Your task to perform on an android device: turn off airplane mode Image 0: 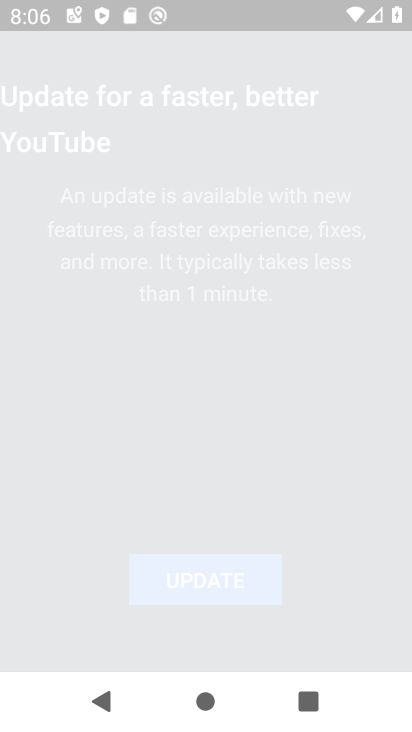
Step 0: press home button
Your task to perform on an android device: turn off airplane mode Image 1: 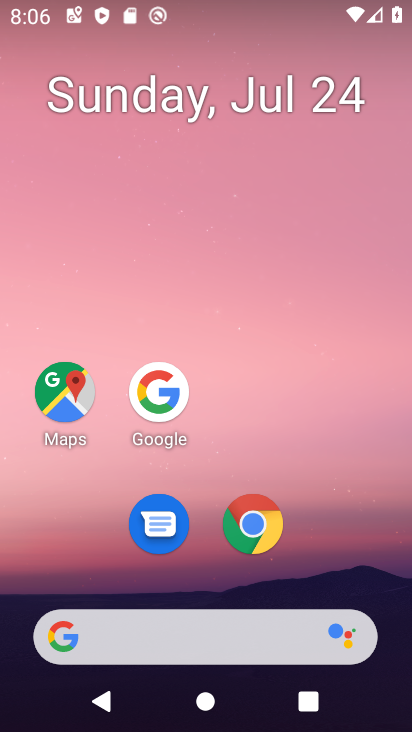
Step 1: drag from (197, 629) to (342, 88)
Your task to perform on an android device: turn off airplane mode Image 2: 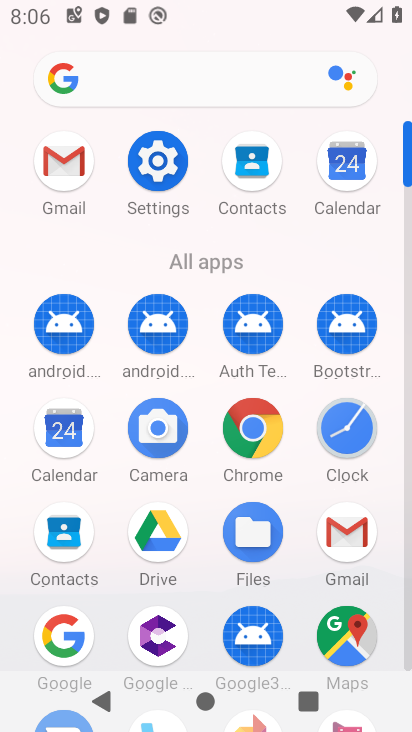
Step 2: click (162, 149)
Your task to perform on an android device: turn off airplane mode Image 3: 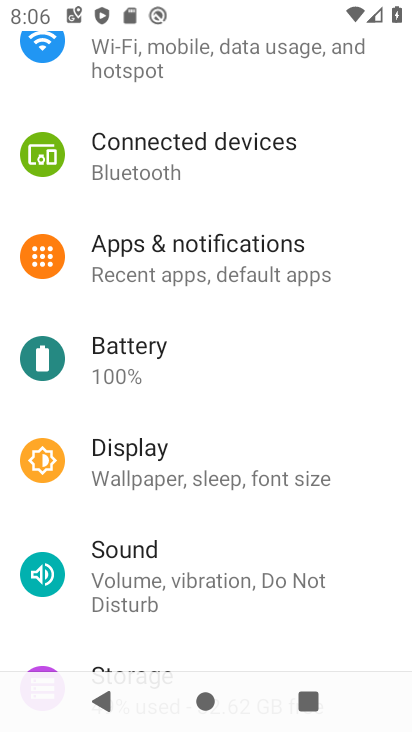
Step 3: drag from (334, 97) to (292, 591)
Your task to perform on an android device: turn off airplane mode Image 4: 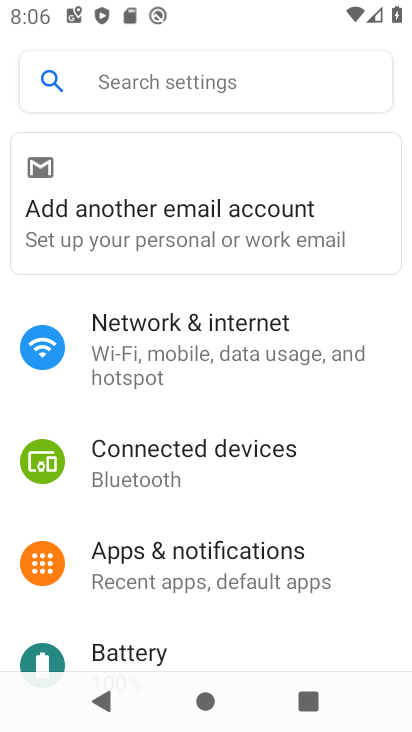
Step 4: click (223, 335)
Your task to perform on an android device: turn off airplane mode Image 5: 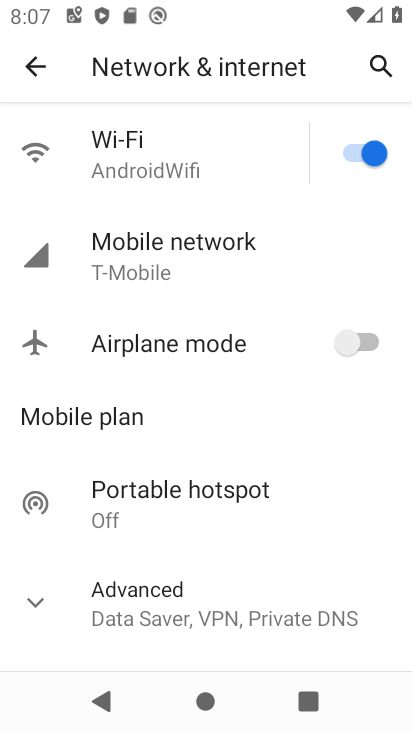
Step 5: task complete